Your task to perform on an android device: empty trash in google photos Image 0: 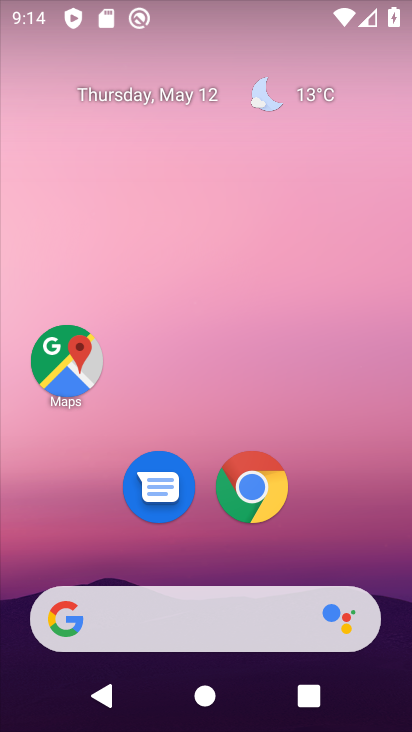
Step 0: drag from (281, 262) to (242, 64)
Your task to perform on an android device: empty trash in google photos Image 1: 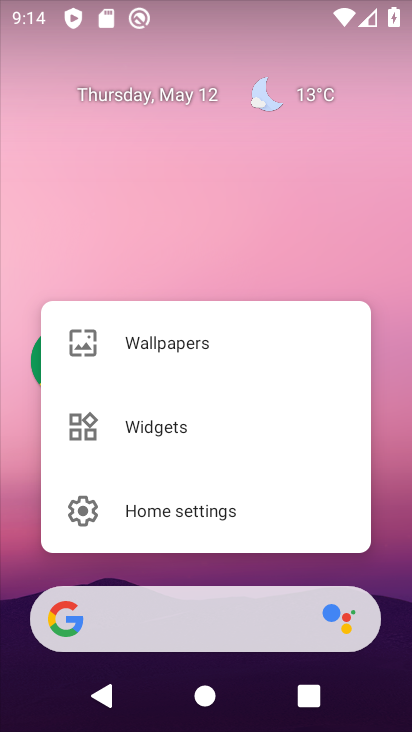
Step 1: drag from (325, 454) to (280, 14)
Your task to perform on an android device: empty trash in google photos Image 2: 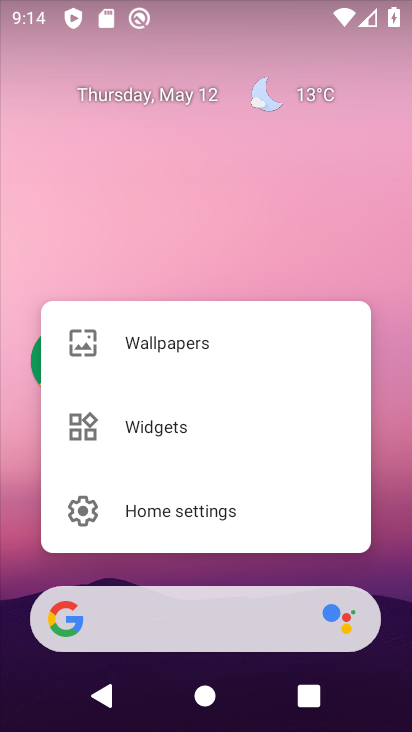
Step 2: click (328, 232)
Your task to perform on an android device: empty trash in google photos Image 3: 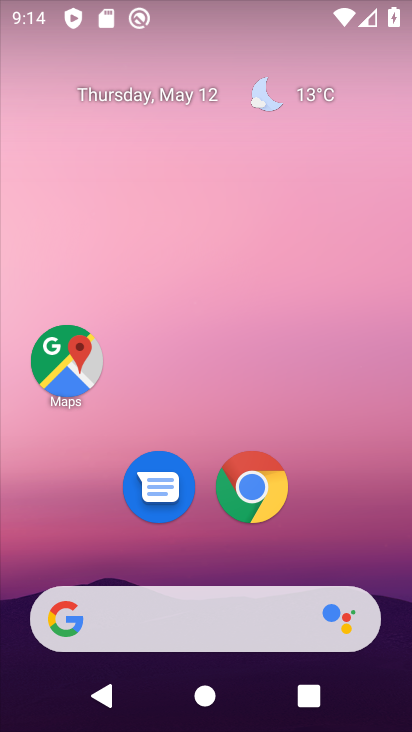
Step 3: drag from (332, 512) to (199, 16)
Your task to perform on an android device: empty trash in google photos Image 4: 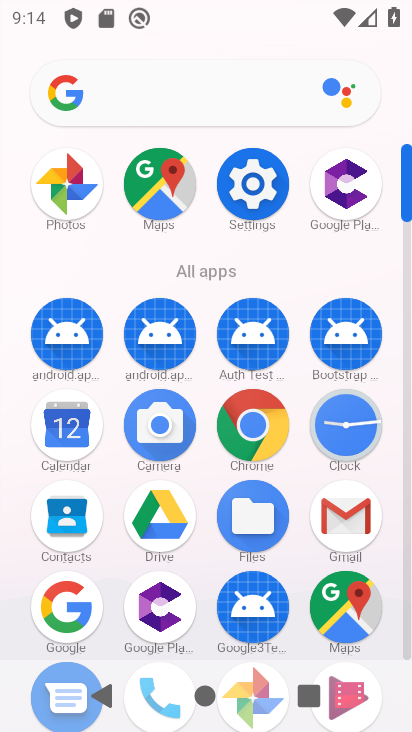
Step 4: click (73, 184)
Your task to perform on an android device: empty trash in google photos Image 5: 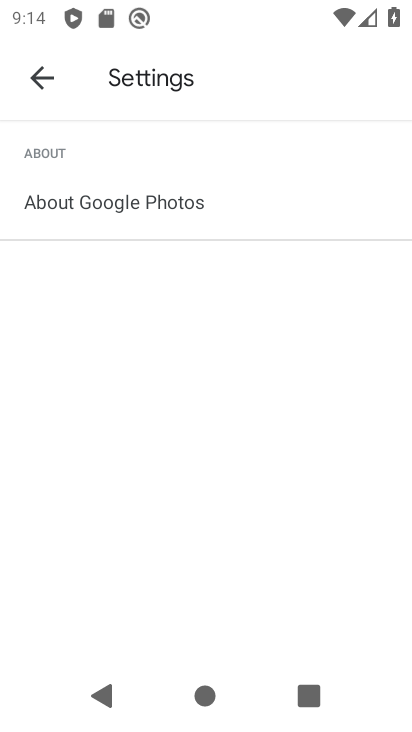
Step 5: click (50, 85)
Your task to perform on an android device: empty trash in google photos Image 6: 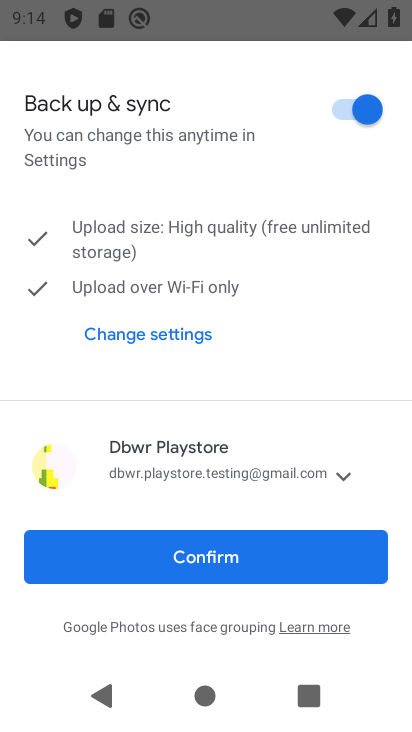
Step 6: click (165, 563)
Your task to perform on an android device: empty trash in google photos Image 7: 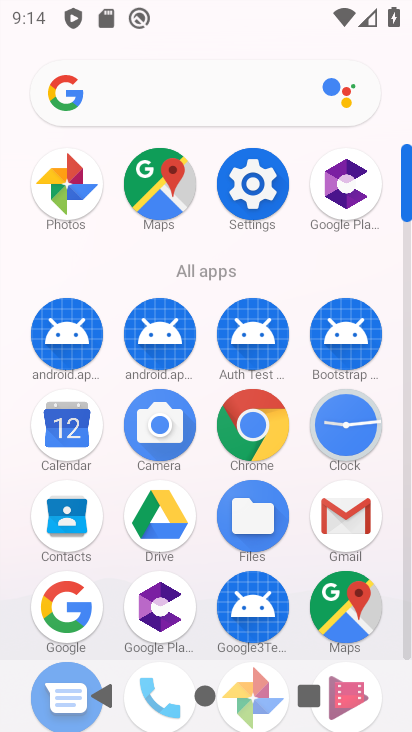
Step 7: click (78, 203)
Your task to perform on an android device: empty trash in google photos Image 8: 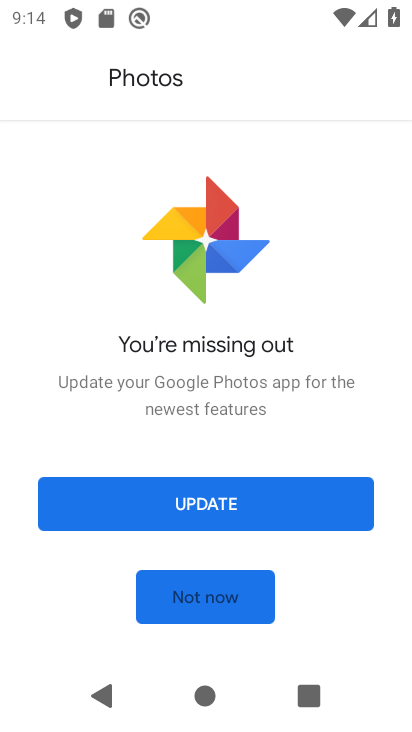
Step 8: click (296, 503)
Your task to perform on an android device: empty trash in google photos Image 9: 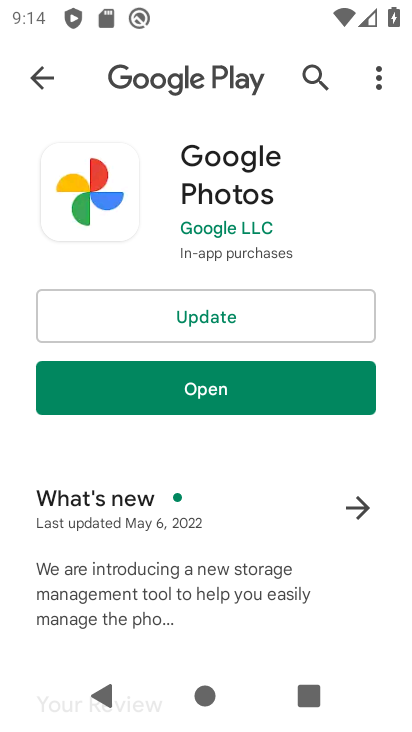
Step 9: click (265, 299)
Your task to perform on an android device: empty trash in google photos Image 10: 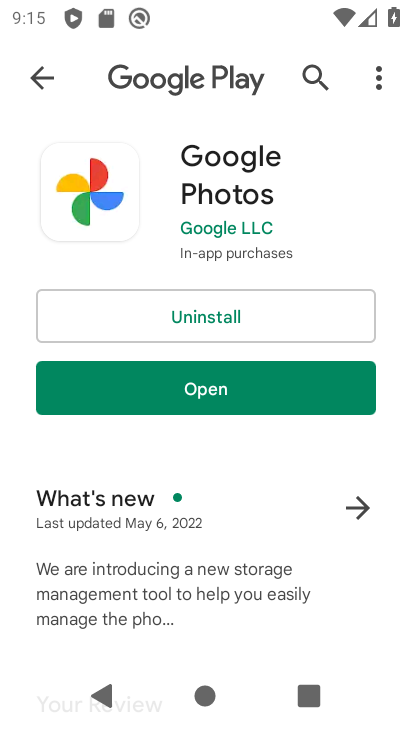
Step 10: click (223, 392)
Your task to perform on an android device: empty trash in google photos Image 11: 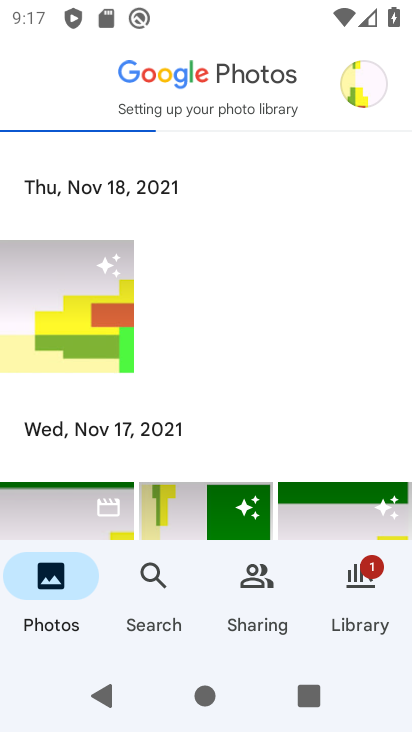
Step 11: click (355, 575)
Your task to perform on an android device: empty trash in google photos Image 12: 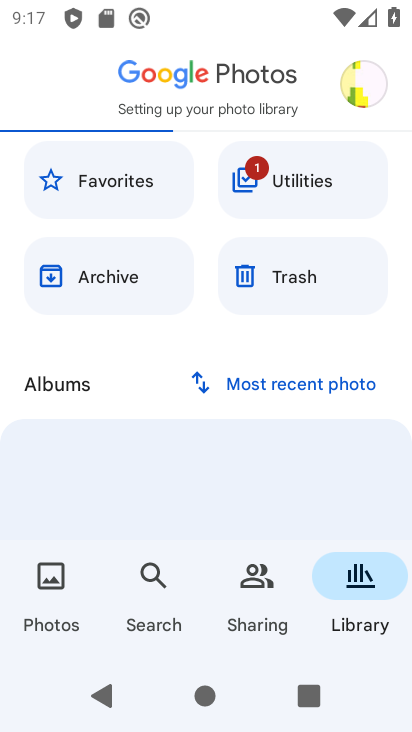
Step 12: click (283, 272)
Your task to perform on an android device: empty trash in google photos Image 13: 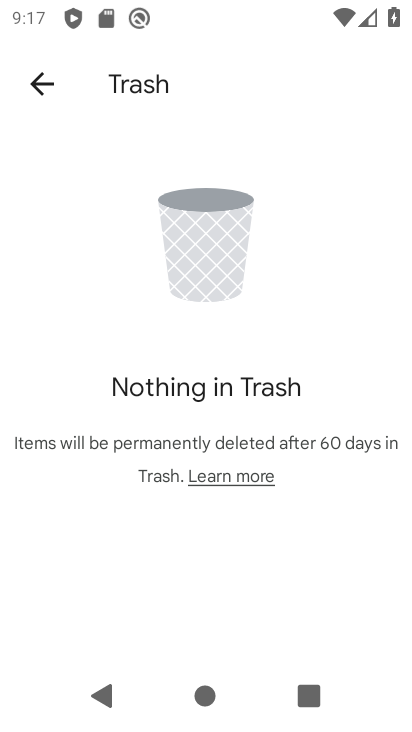
Step 13: task complete